Your task to perform on an android device: clear all cookies in the chrome app Image 0: 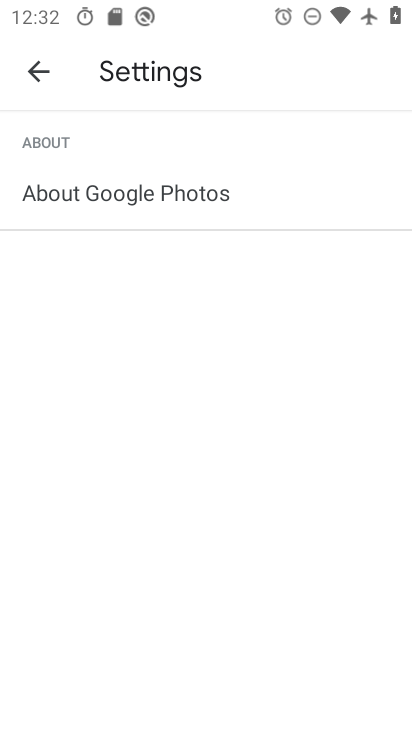
Step 0: press home button
Your task to perform on an android device: clear all cookies in the chrome app Image 1: 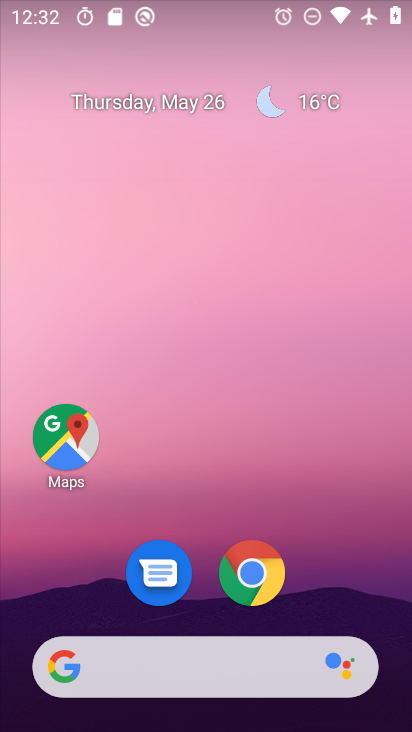
Step 1: click (256, 575)
Your task to perform on an android device: clear all cookies in the chrome app Image 2: 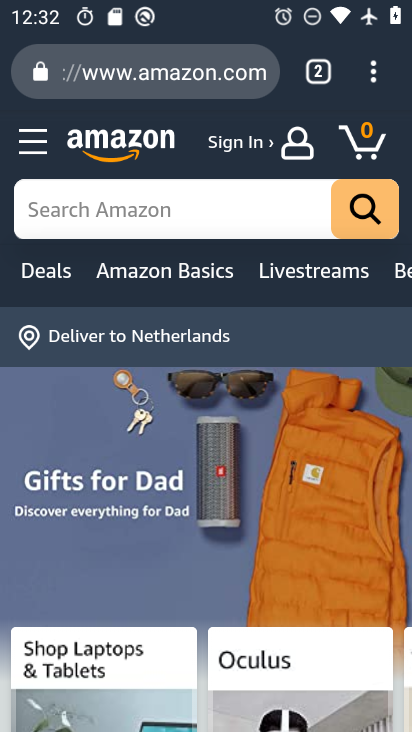
Step 2: click (373, 80)
Your task to perform on an android device: clear all cookies in the chrome app Image 3: 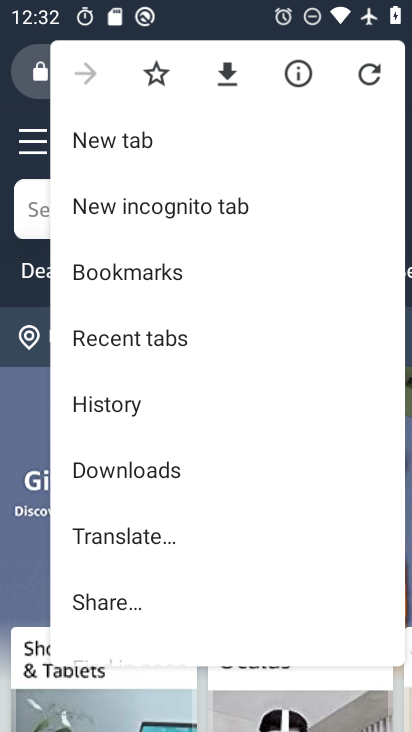
Step 3: drag from (193, 602) to (159, 137)
Your task to perform on an android device: clear all cookies in the chrome app Image 4: 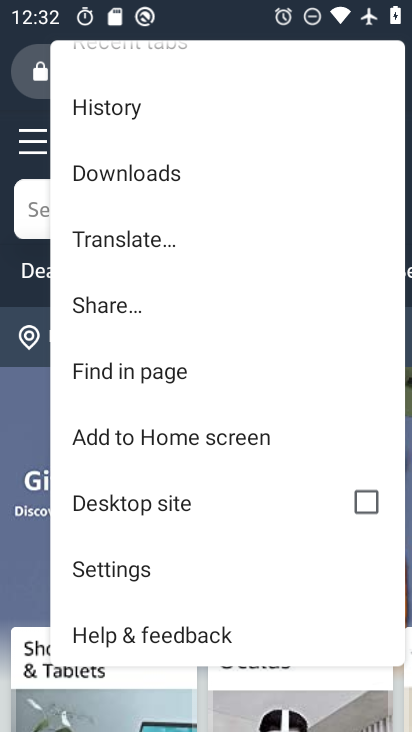
Step 4: click (104, 573)
Your task to perform on an android device: clear all cookies in the chrome app Image 5: 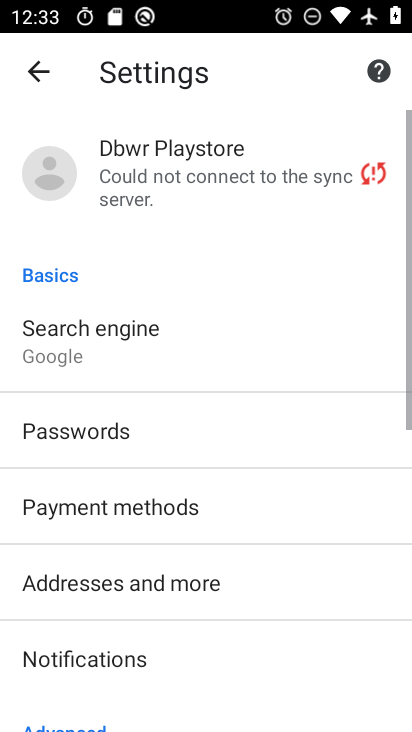
Step 5: drag from (155, 557) to (106, 182)
Your task to perform on an android device: clear all cookies in the chrome app Image 6: 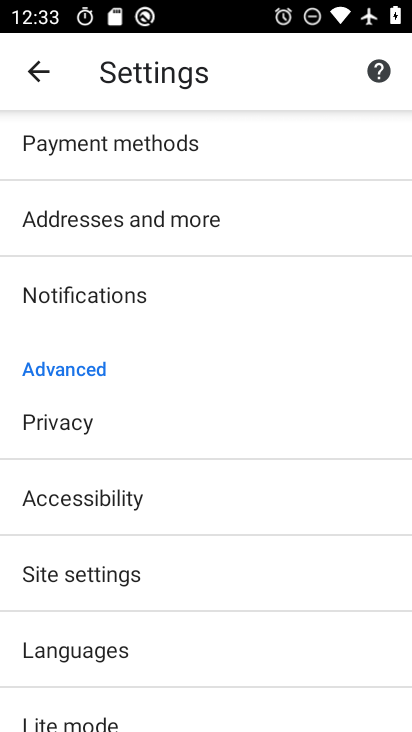
Step 6: click (61, 425)
Your task to perform on an android device: clear all cookies in the chrome app Image 7: 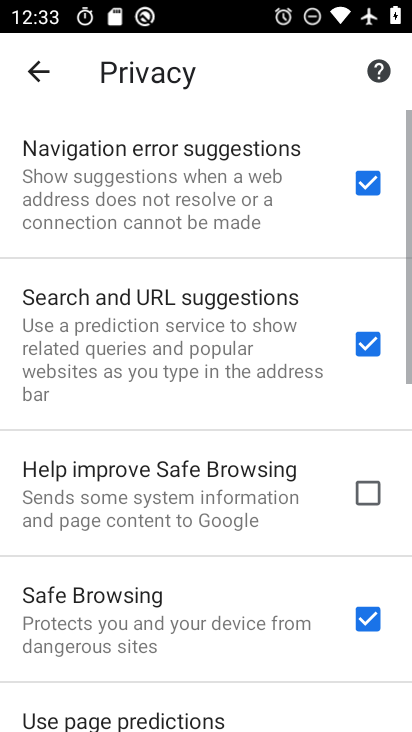
Step 7: drag from (143, 578) to (86, 169)
Your task to perform on an android device: clear all cookies in the chrome app Image 8: 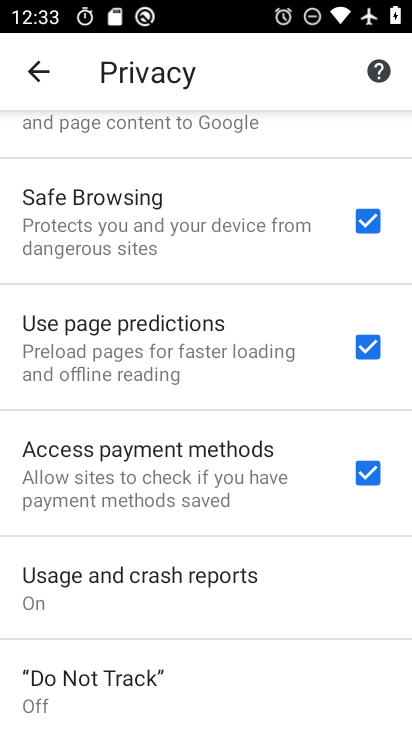
Step 8: drag from (107, 501) to (98, 100)
Your task to perform on an android device: clear all cookies in the chrome app Image 9: 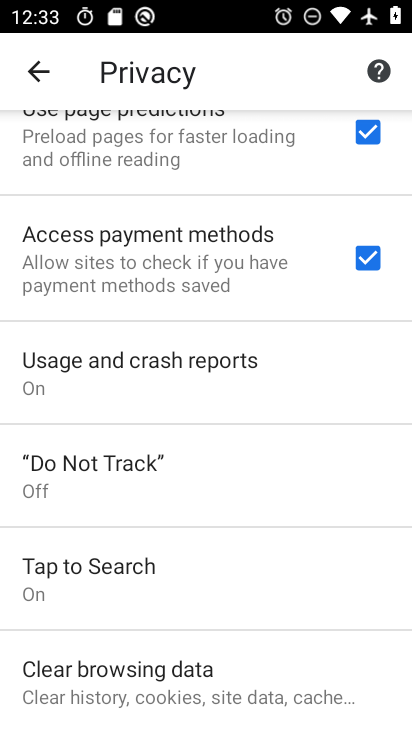
Step 9: click (121, 676)
Your task to perform on an android device: clear all cookies in the chrome app Image 10: 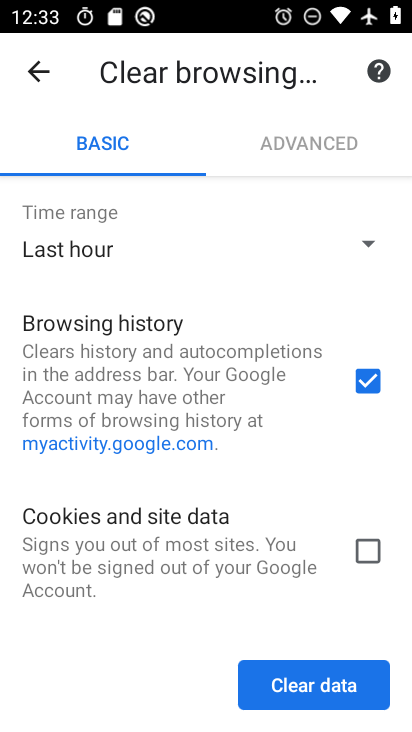
Step 10: click (356, 378)
Your task to perform on an android device: clear all cookies in the chrome app Image 11: 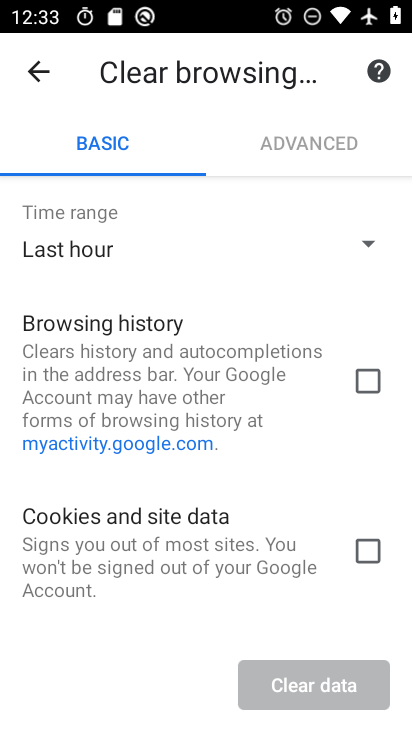
Step 11: click (372, 561)
Your task to perform on an android device: clear all cookies in the chrome app Image 12: 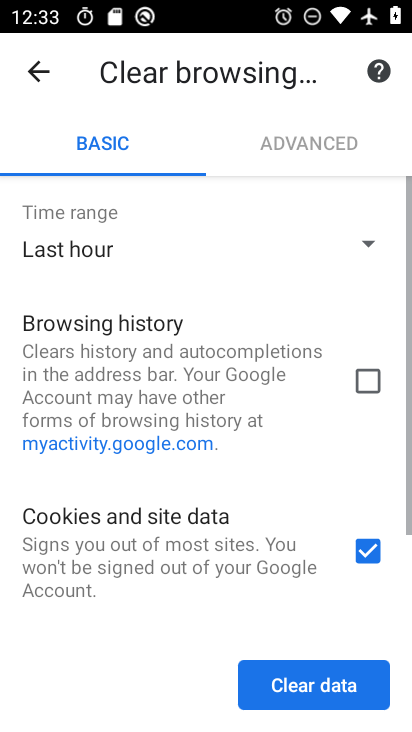
Step 12: drag from (206, 569) to (121, 232)
Your task to perform on an android device: clear all cookies in the chrome app Image 13: 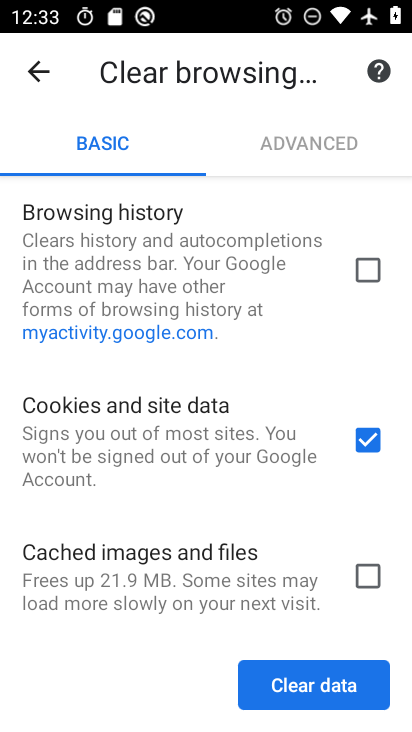
Step 13: click (302, 687)
Your task to perform on an android device: clear all cookies in the chrome app Image 14: 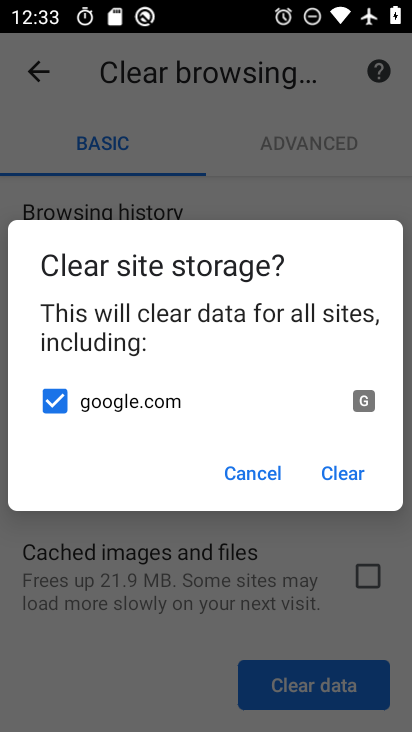
Step 14: click (338, 463)
Your task to perform on an android device: clear all cookies in the chrome app Image 15: 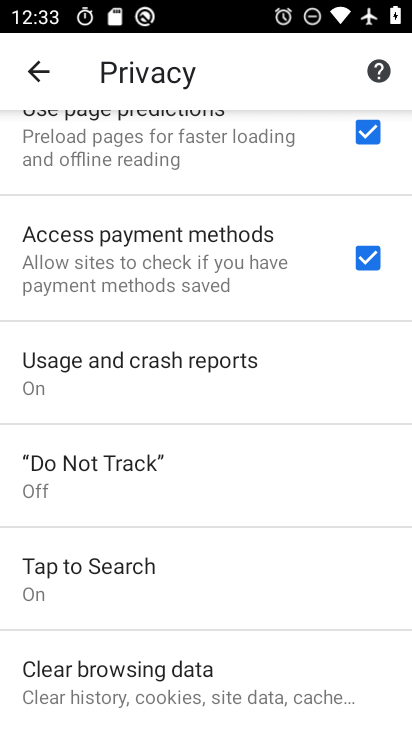
Step 15: task complete